Your task to perform on an android device: search for starred emails in the gmail app Image 0: 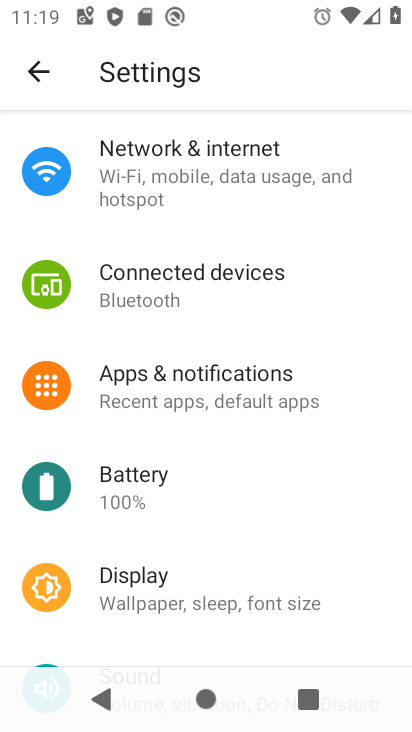
Step 0: press home button
Your task to perform on an android device: search for starred emails in the gmail app Image 1: 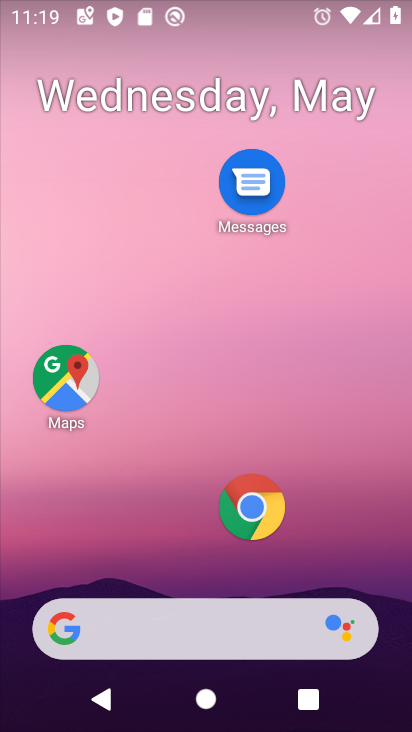
Step 1: drag from (198, 560) to (201, 100)
Your task to perform on an android device: search for starred emails in the gmail app Image 2: 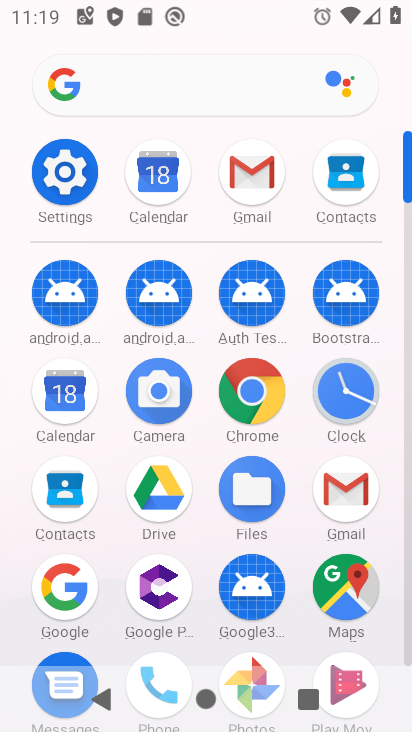
Step 2: click (343, 482)
Your task to perform on an android device: search for starred emails in the gmail app Image 3: 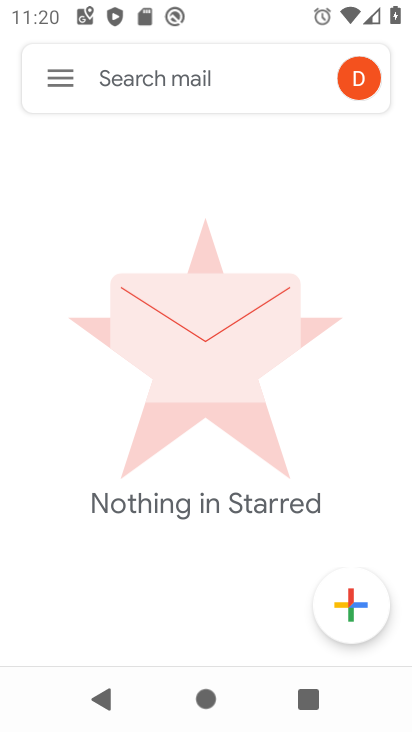
Step 3: task complete